Your task to perform on an android device: Open CNN.com Image 0: 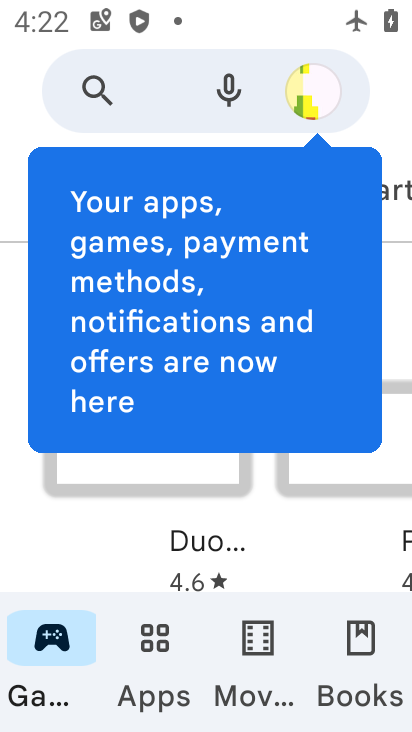
Step 0: press back button
Your task to perform on an android device: Open CNN.com Image 1: 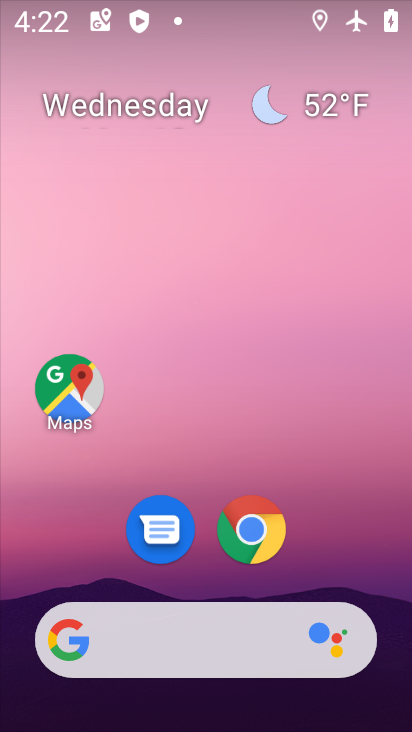
Step 1: click (251, 528)
Your task to perform on an android device: Open CNN.com Image 2: 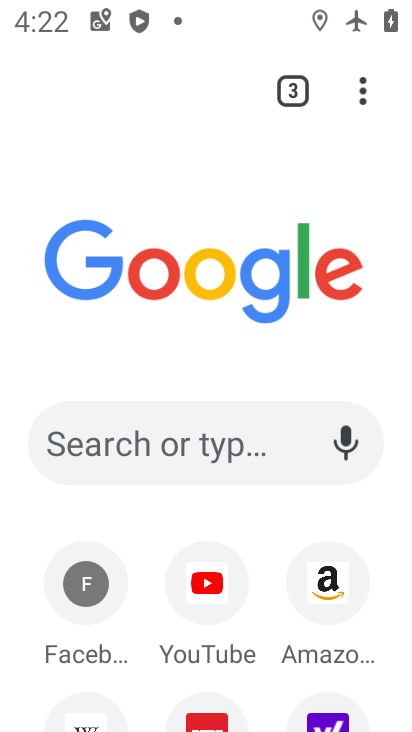
Step 2: click (181, 429)
Your task to perform on an android device: Open CNN.com Image 3: 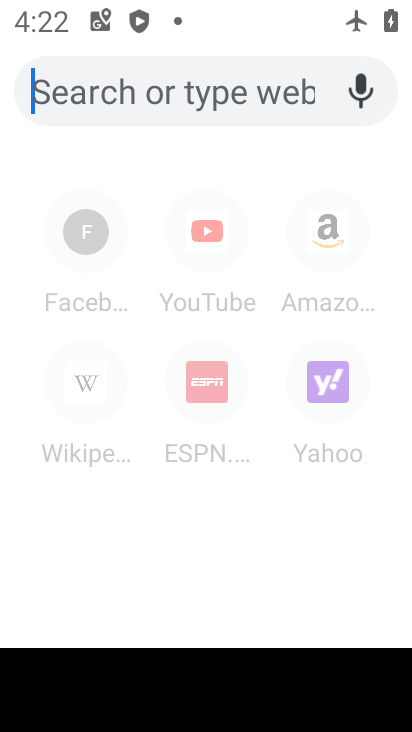
Step 3: type "CNN.com"
Your task to perform on an android device: Open CNN.com Image 4: 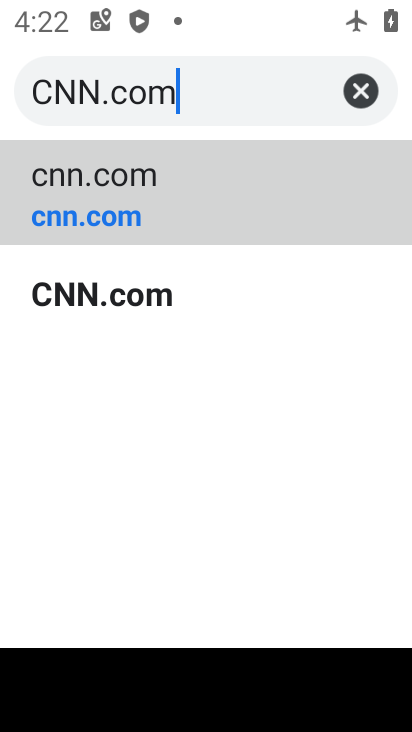
Step 4: type ""
Your task to perform on an android device: Open CNN.com Image 5: 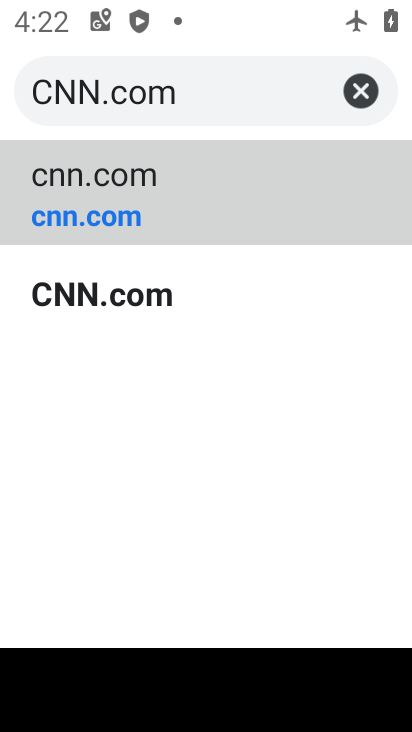
Step 5: click (118, 293)
Your task to perform on an android device: Open CNN.com Image 6: 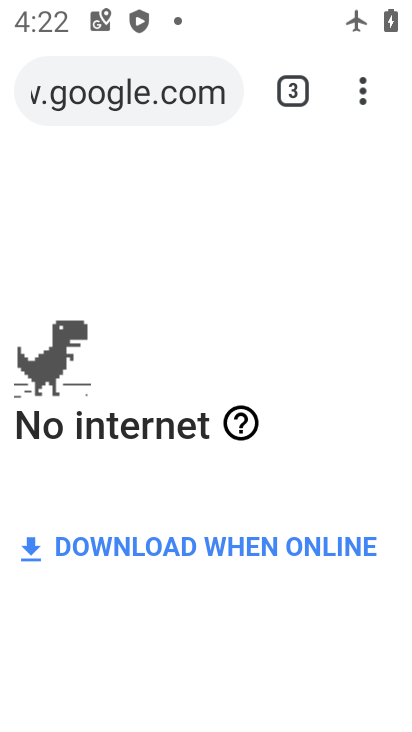
Step 6: click (45, 356)
Your task to perform on an android device: Open CNN.com Image 7: 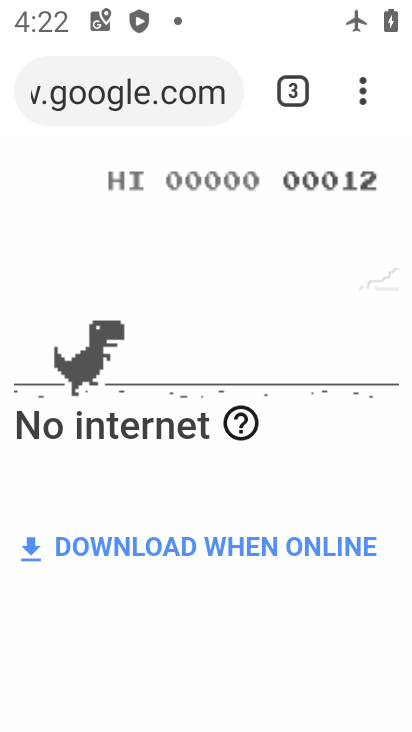
Step 7: click (141, 384)
Your task to perform on an android device: Open CNN.com Image 8: 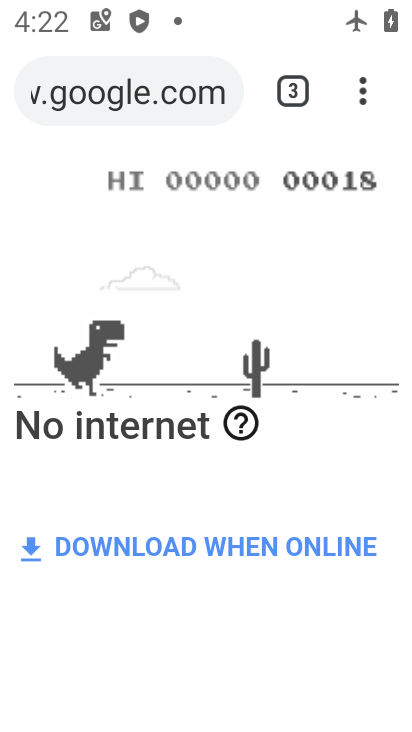
Step 8: click (141, 384)
Your task to perform on an android device: Open CNN.com Image 9: 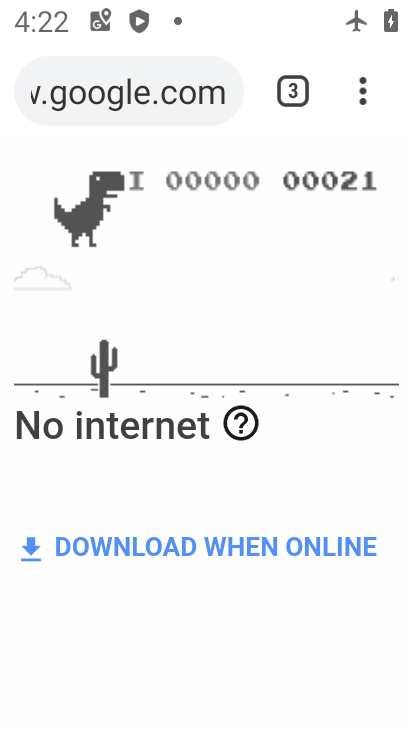
Step 9: click (141, 384)
Your task to perform on an android device: Open CNN.com Image 10: 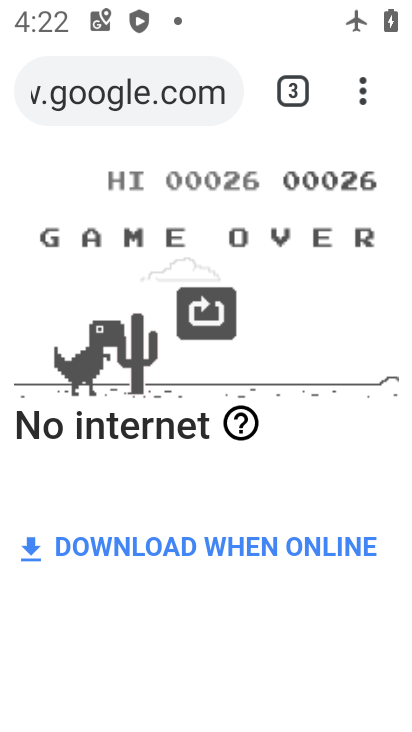
Step 10: click (141, 384)
Your task to perform on an android device: Open CNN.com Image 11: 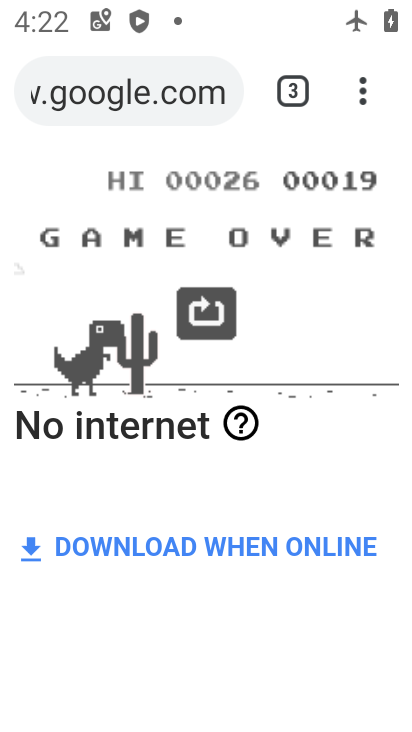
Step 11: task complete